Your task to perform on an android device: choose inbox layout in the gmail app Image 0: 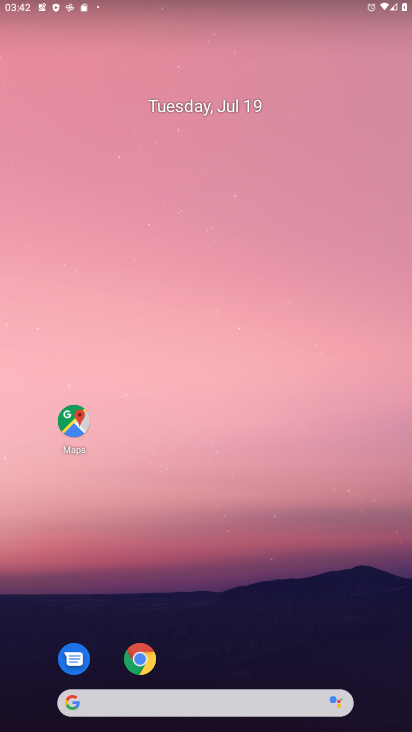
Step 0: press home button
Your task to perform on an android device: choose inbox layout in the gmail app Image 1: 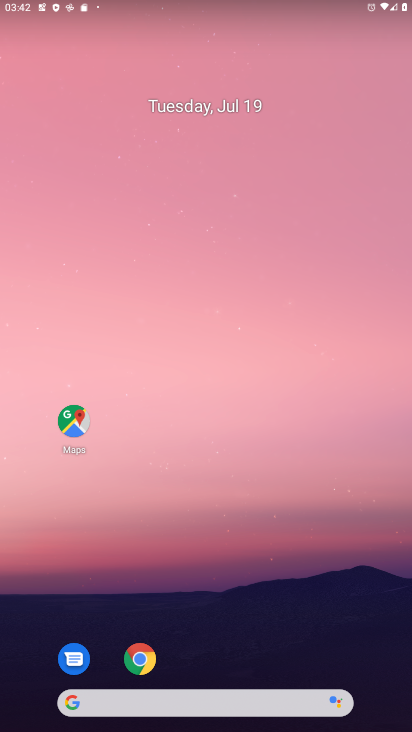
Step 1: drag from (321, 629) to (349, 139)
Your task to perform on an android device: choose inbox layout in the gmail app Image 2: 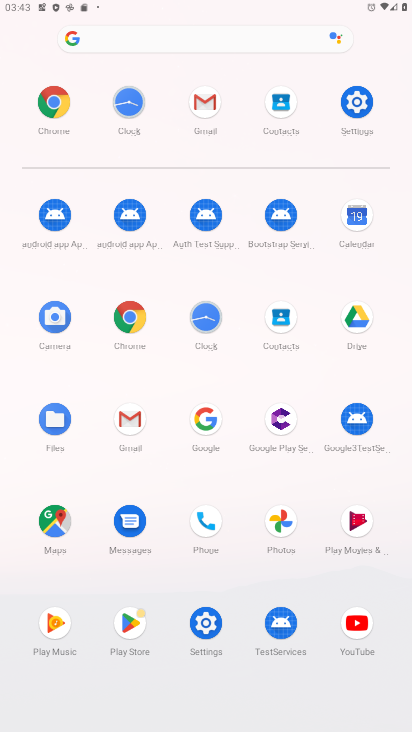
Step 2: click (122, 416)
Your task to perform on an android device: choose inbox layout in the gmail app Image 3: 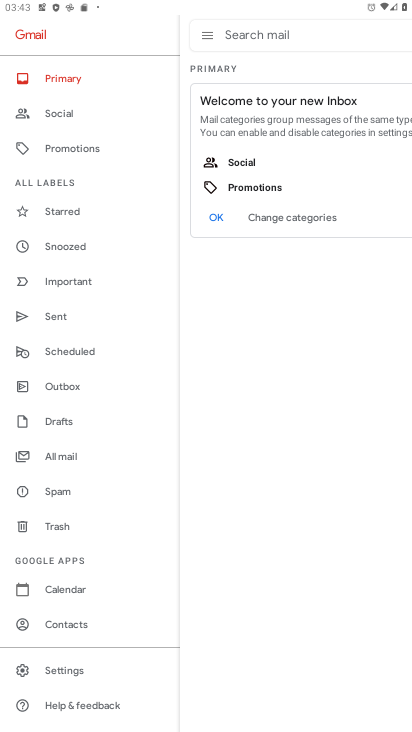
Step 3: click (66, 666)
Your task to perform on an android device: choose inbox layout in the gmail app Image 4: 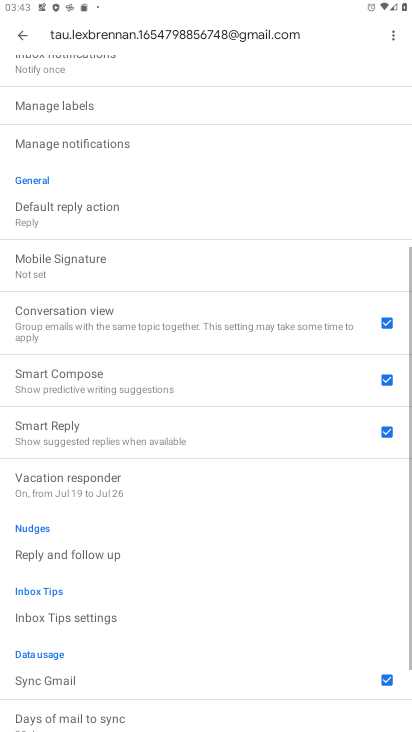
Step 4: click (147, 601)
Your task to perform on an android device: choose inbox layout in the gmail app Image 5: 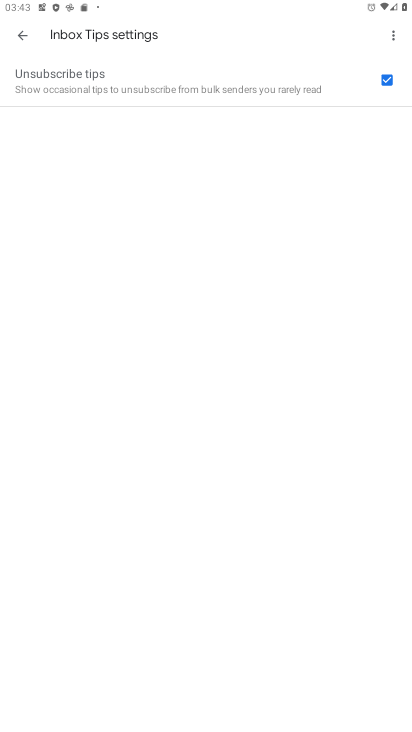
Step 5: click (20, 17)
Your task to perform on an android device: choose inbox layout in the gmail app Image 6: 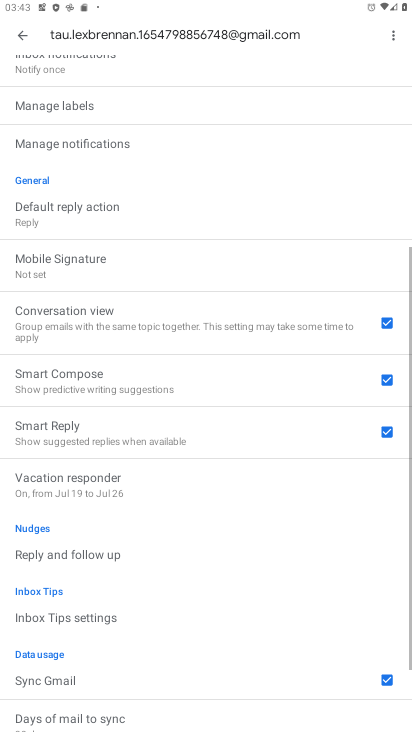
Step 6: drag from (80, 133) to (95, 725)
Your task to perform on an android device: choose inbox layout in the gmail app Image 7: 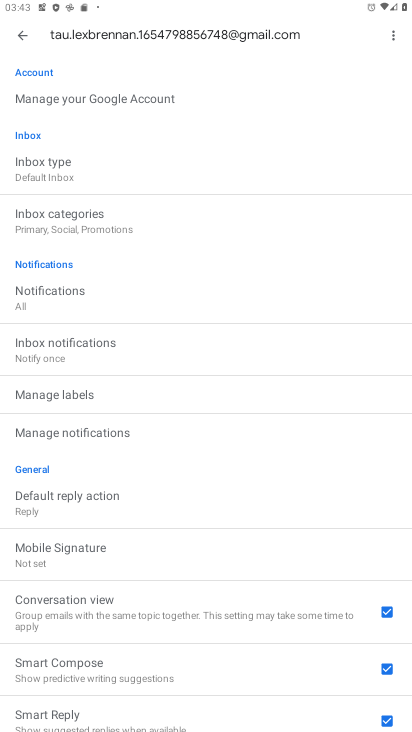
Step 7: click (84, 176)
Your task to perform on an android device: choose inbox layout in the gmail app Image 8: 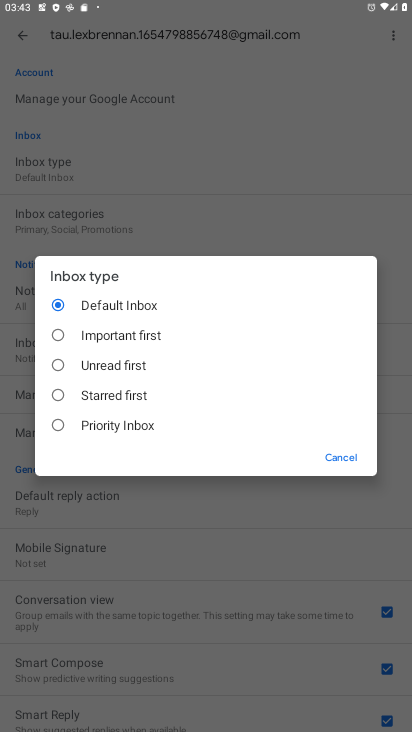
Step 8: click (100, 374)
Your task to perform on an android device: choose inbox layout in the gmail app Image 9: 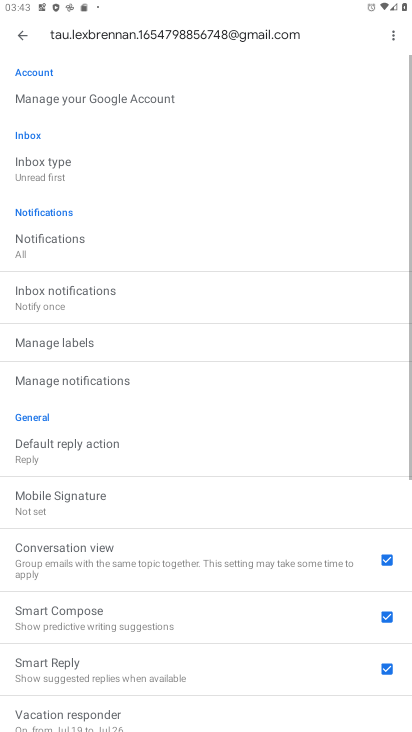
Step 9: task complete